Your task to perform on an android device: empty trash in google photos Image 0: 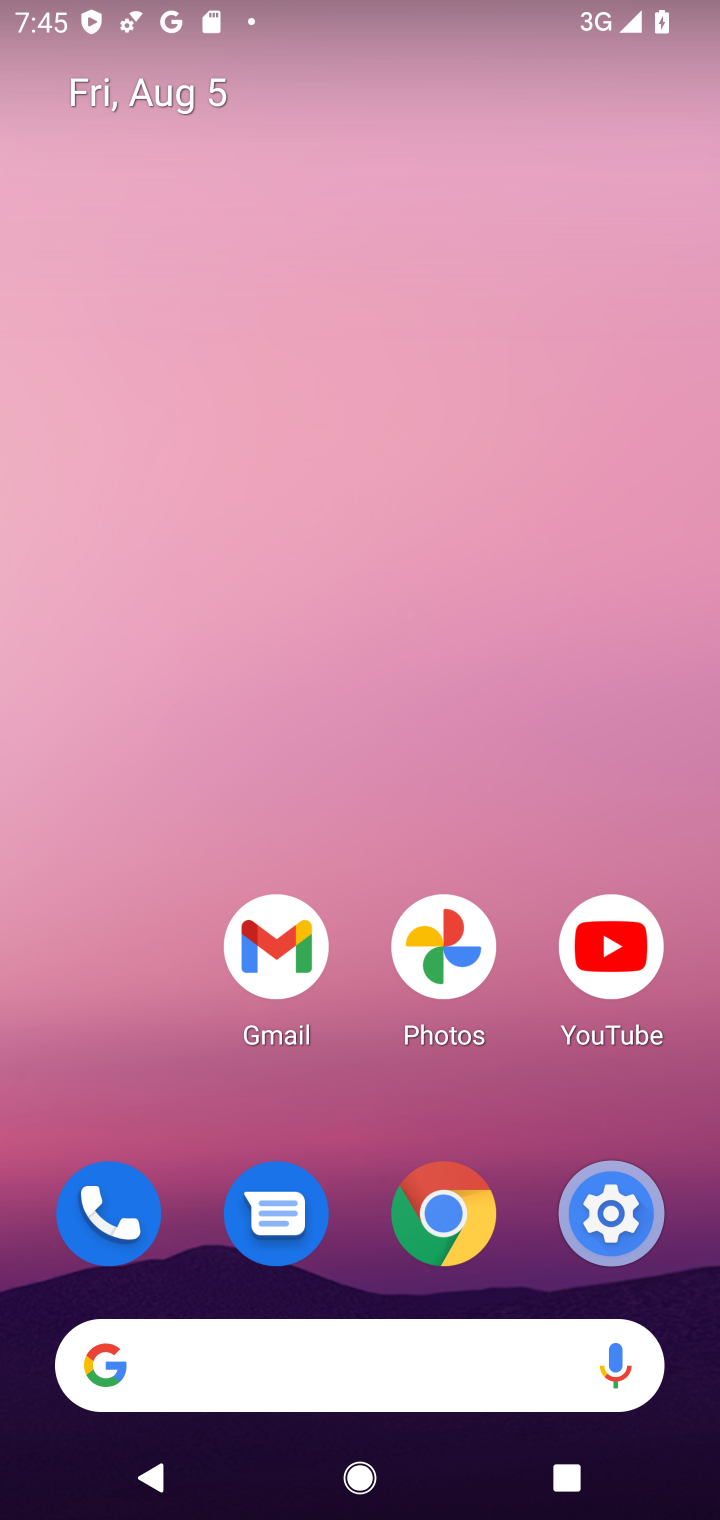
Step 0: drag from (353, 1077) to (372, 310)
Your task to perform on an android device: empty trash in google photos Image 1: 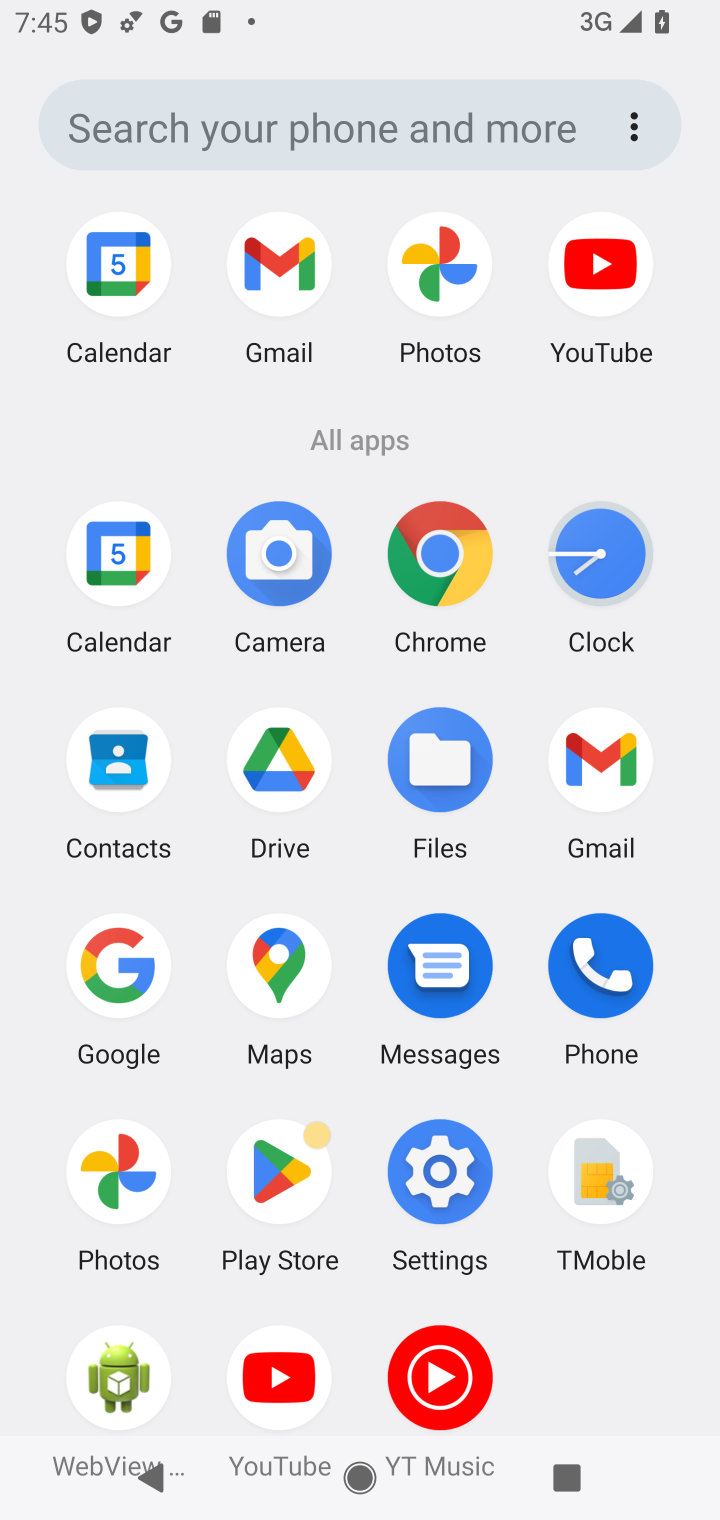
Step 1: click (104, 1172)
Your task to perform on an android device: empty trash in google photos Image 2: 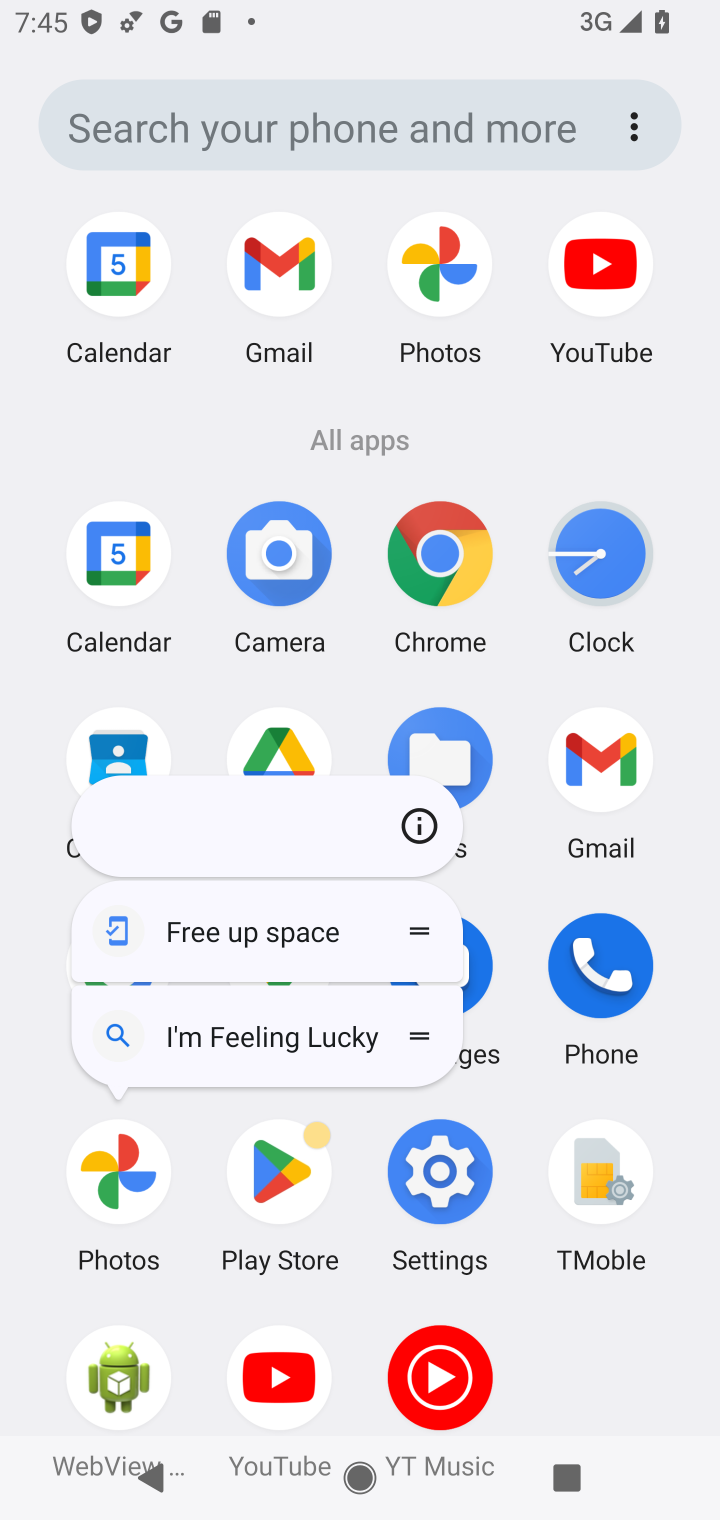
Step 2: click (119, 1161)
Your task to perform on an android device: empty trash in google photos Image 3: 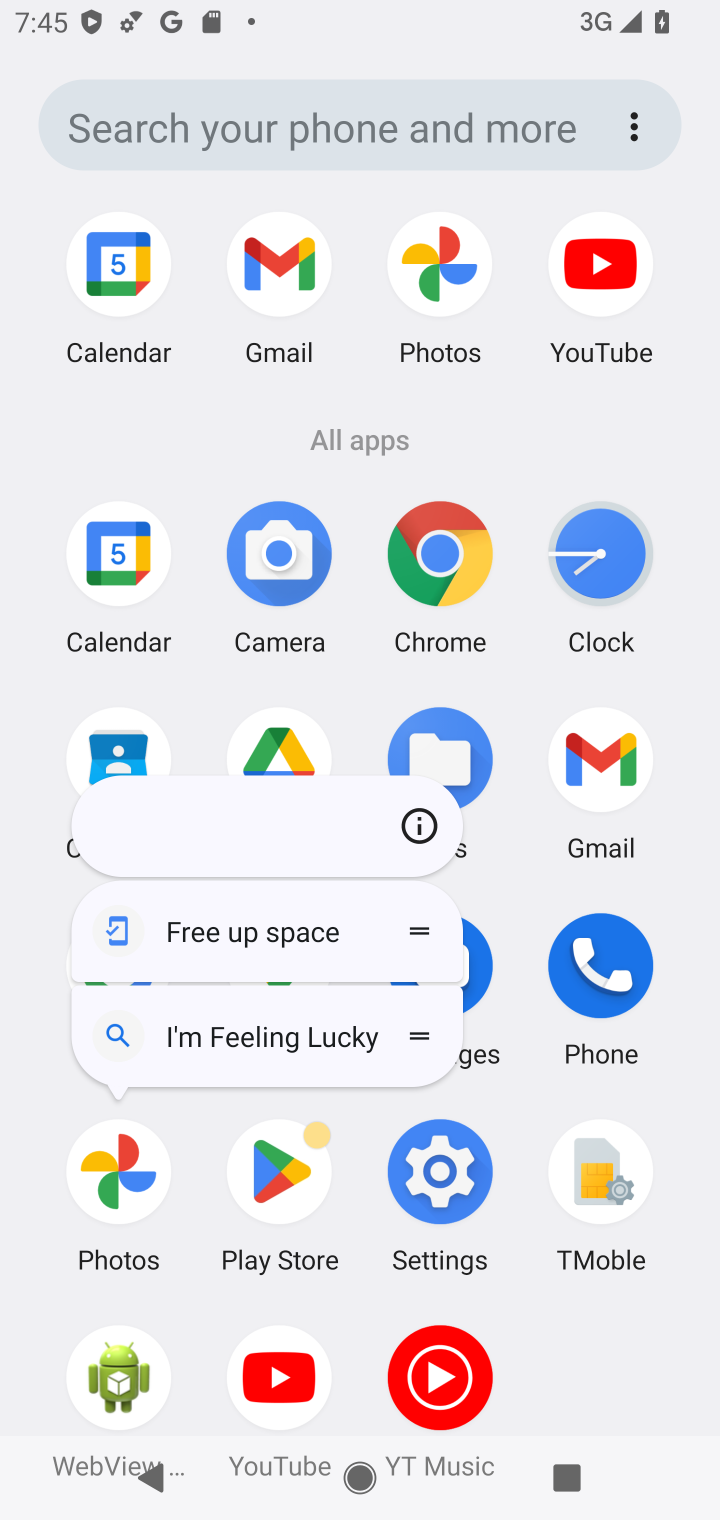
Step 3: click (119, 1161)
Your task to perform on an android device: empty trash in google photos Image 4: 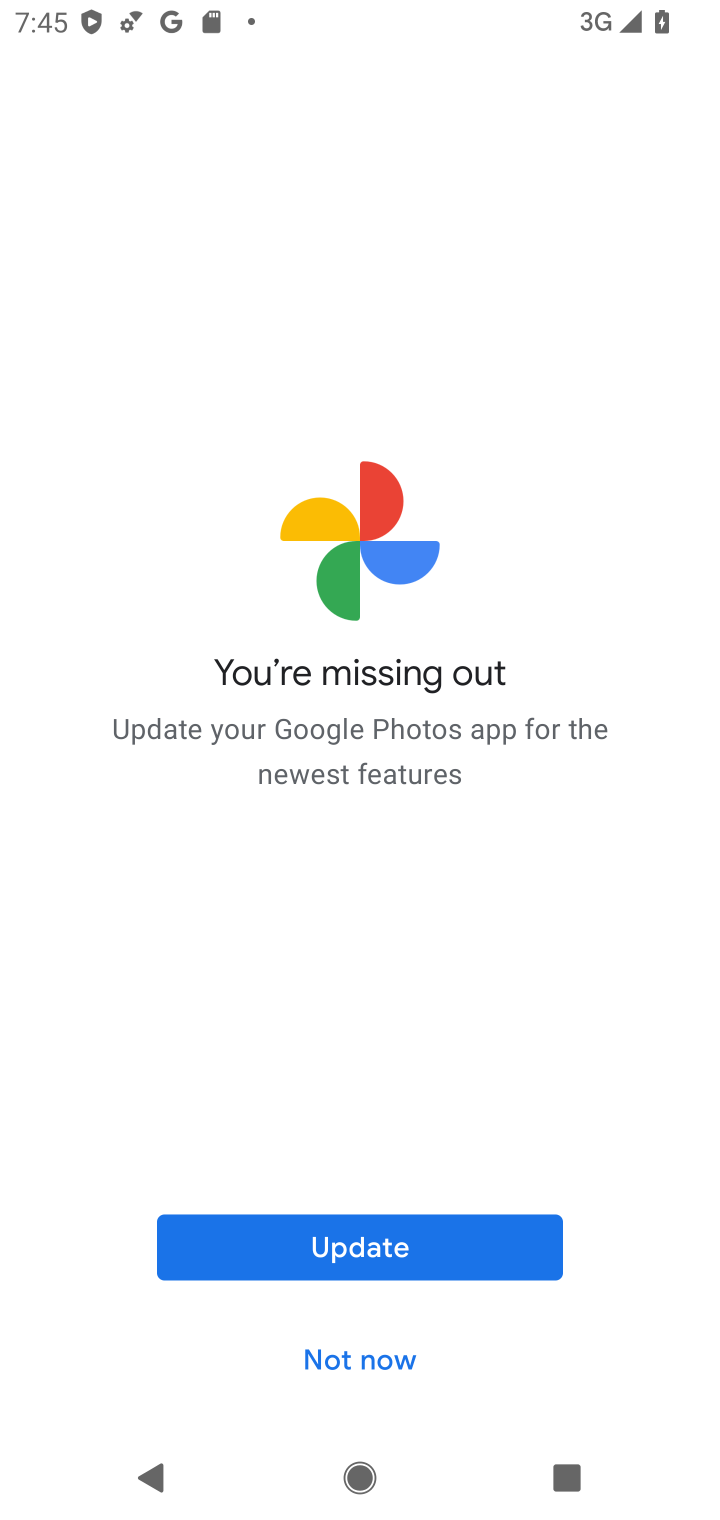
Step 4: click (362, 1335)
Your task to perform on an android device: empty trash in google photos Image 5: 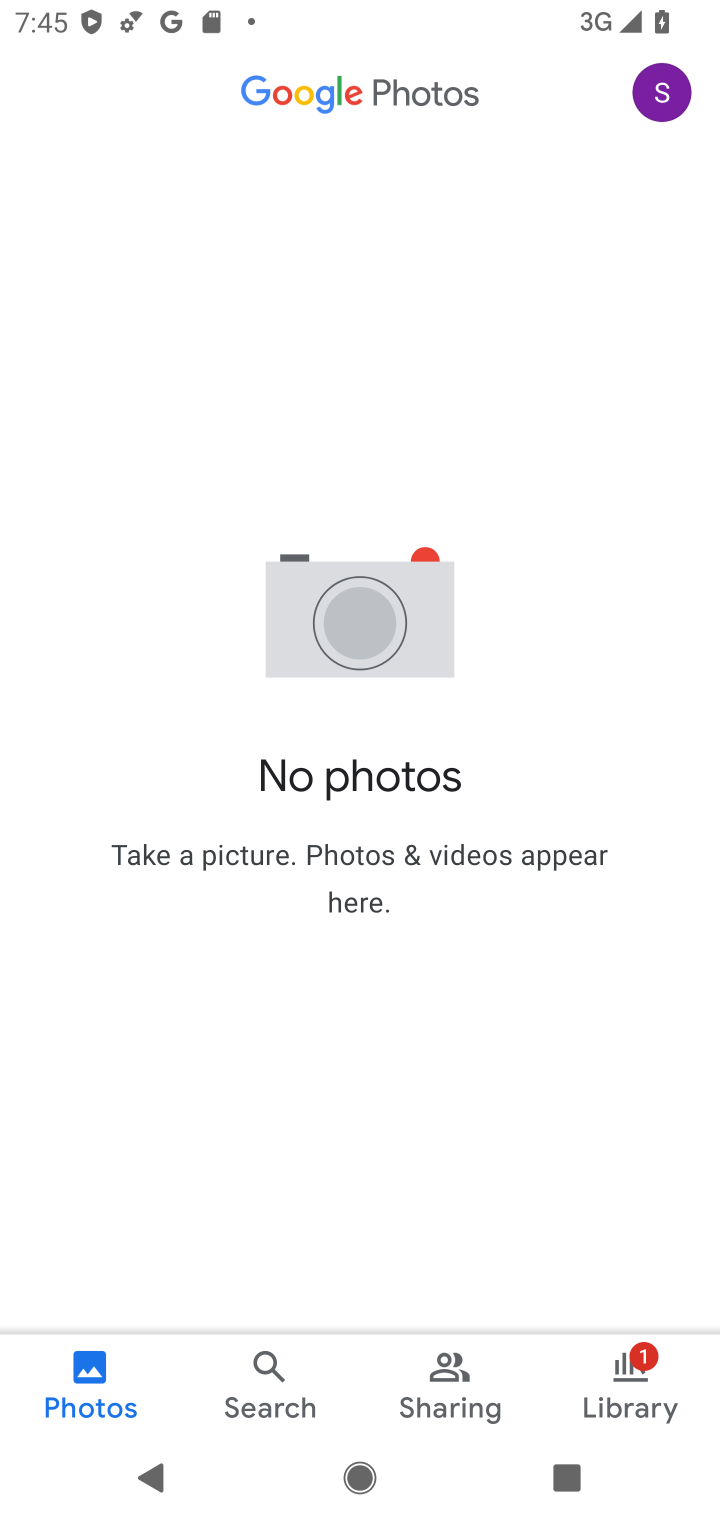
Step 5: click (274, 1372)
Your task to perform on an android device: empty trash in google photos Image 6: 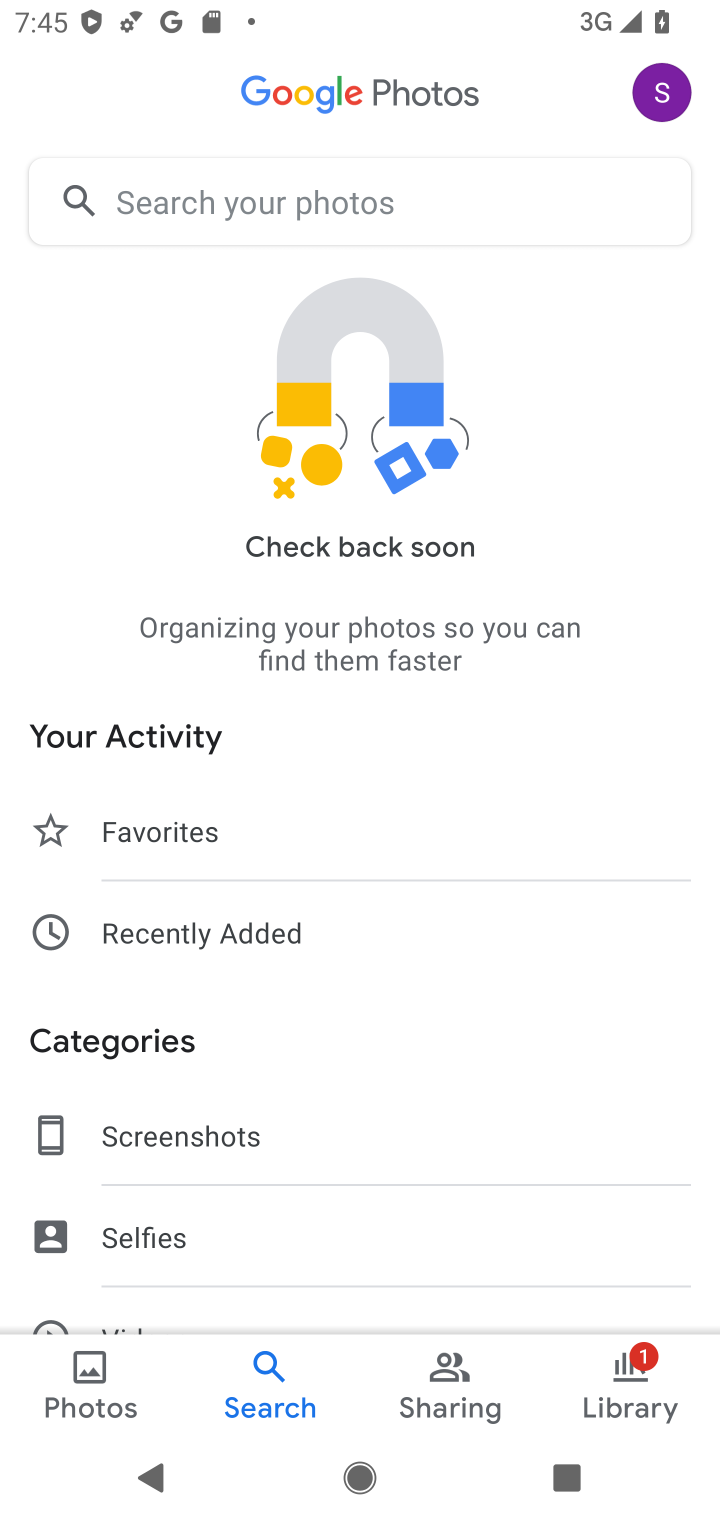
Step 6: click (242, 209)
Your task to perform on an android device: empty trash in google photos Image 7: 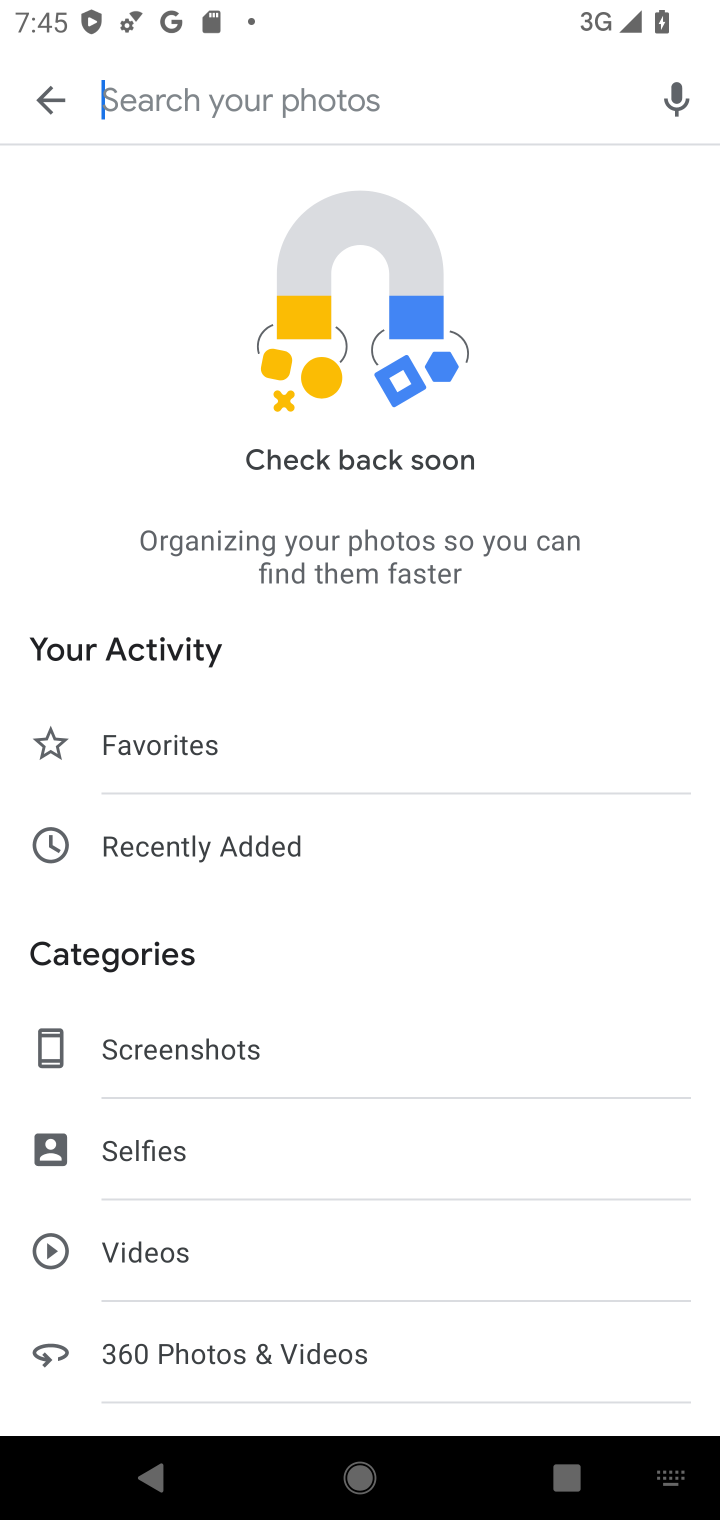
Step 7: type "trash "
Your task to perform on an android device: empty trash in google photos Image 8: 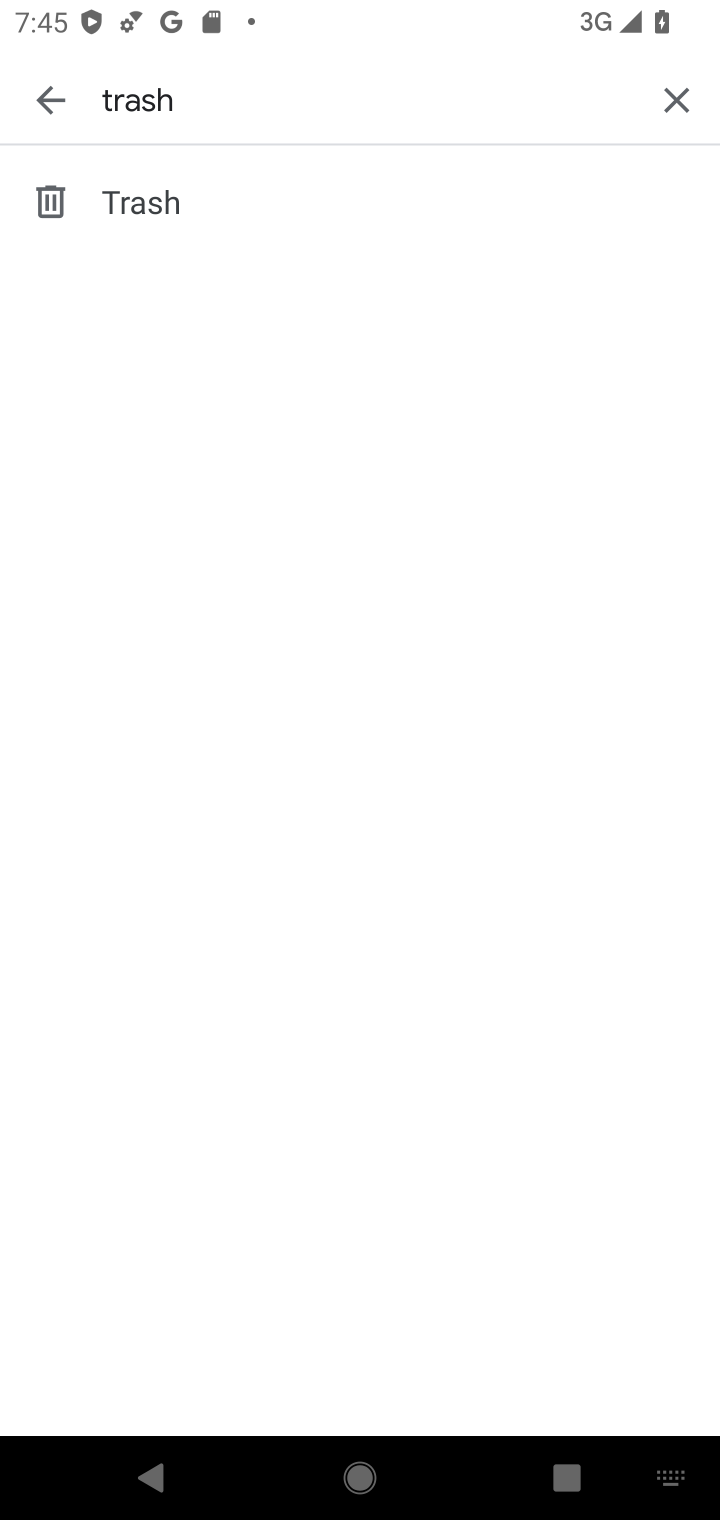
Step 8: click (228, 211)
Your task to perform on an android device: empty trash in google photos Image 9: 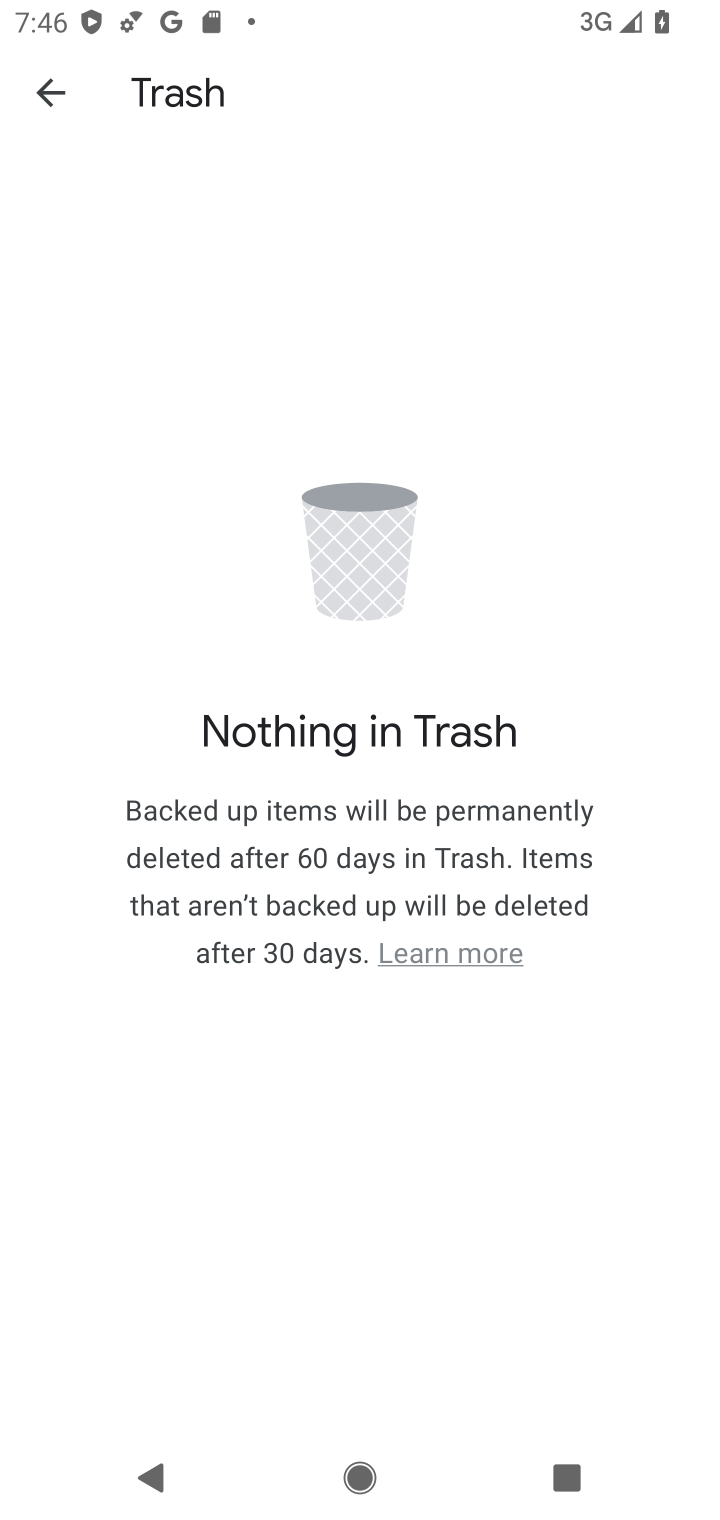
Step 9: task complete